Your task to perform on an android device: toggle notification dots Image 0: 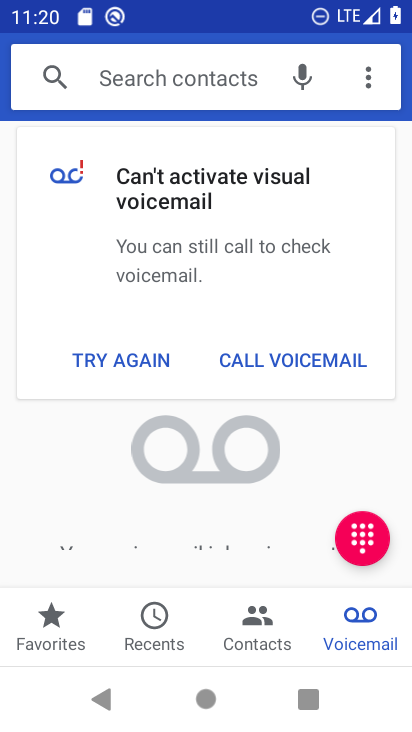
Step 0: press home button
Your task to perform on an android device: toggle notification dots Image 1: 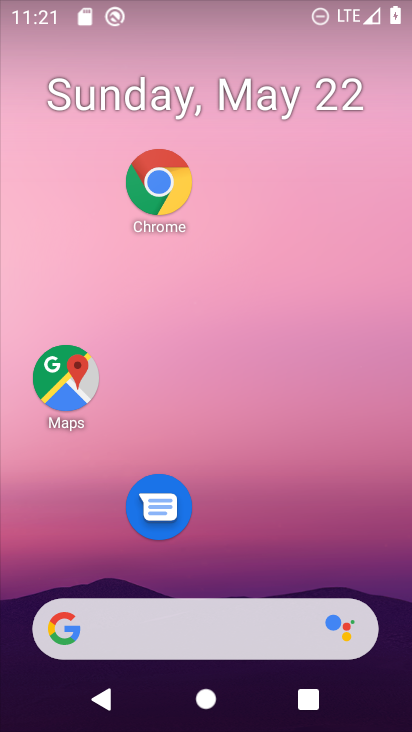
Step 1: drag from (252, 698) to (403, 52)
Your task to perform on an android device: toggle notification dots Image 2: 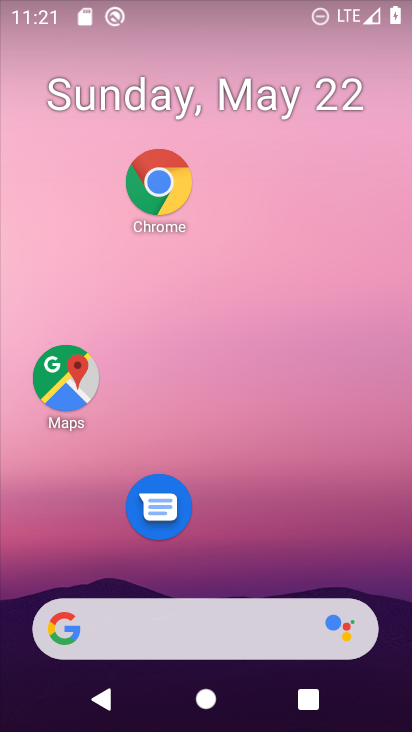
Step 2: drag from (263, 693) to (296, 1)
Your task to perform on an android device: toggle notification dots Image 3: 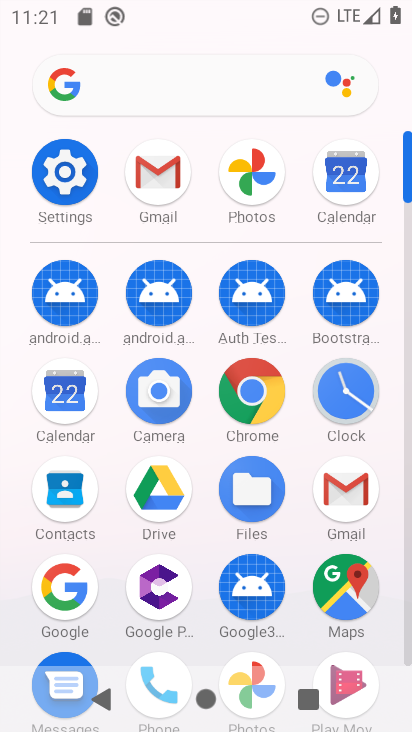
Step 3: click (59, 170)
Your task to perform on an android device: toggle notification dots Image 4: 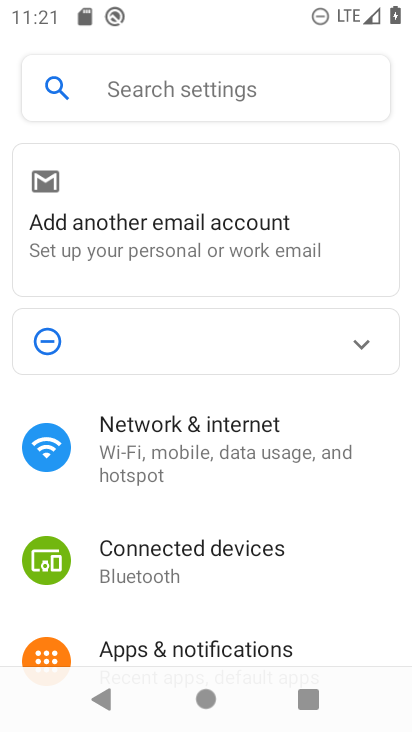
Step 4: click (248, 640)
Your task to perform on an android device: toggle notification dots Image 5: 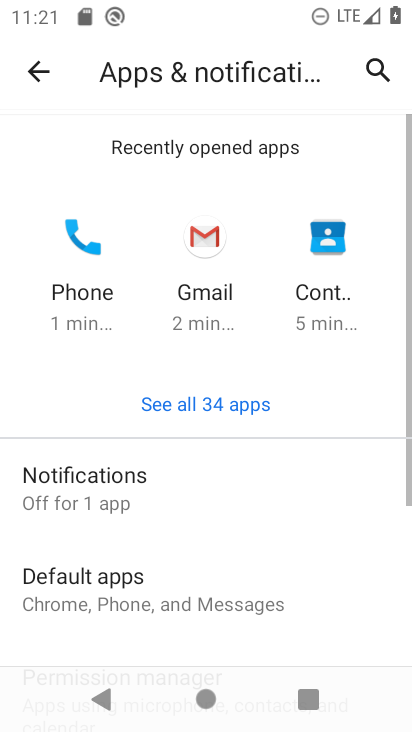
Step 5: drag from (273, 575) to (195, 61)
Your task to perform on an android device: toggle notification dots Image 6: 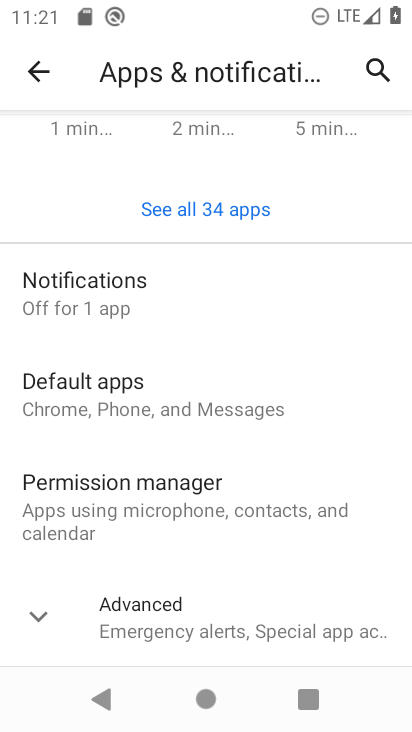
Step 6: click (294, 629)
Your task to perform on an android device: toggle notification dots Image 7: 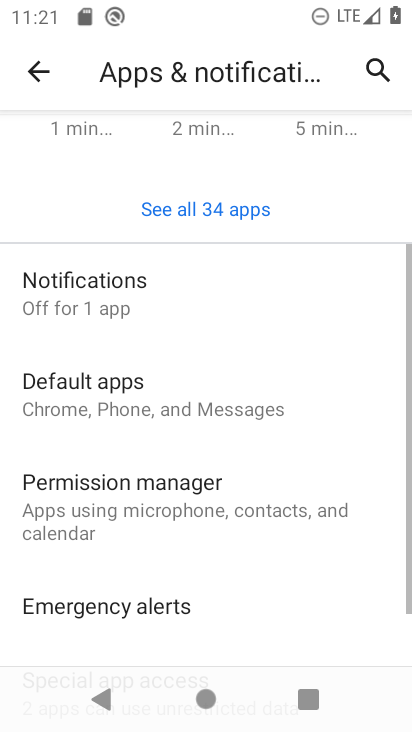
Step 7: click (254, 326)
Your task to perform on an android device: toggle notification dots Image 8: 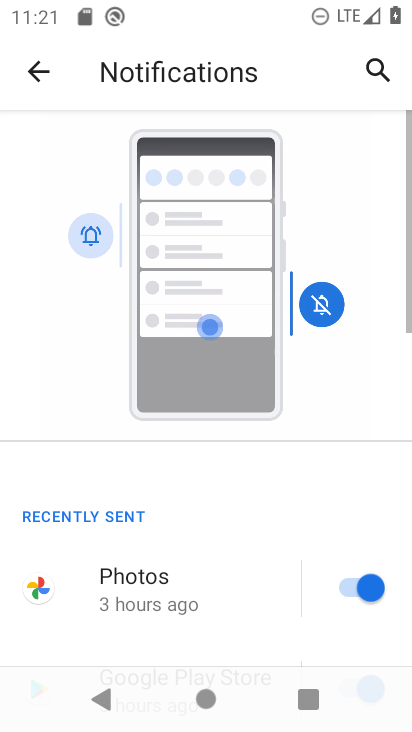
Step 8: drag from (274, 587) to (243, 10)
Your task to perform on an android device: toggle notification dots Image 9: 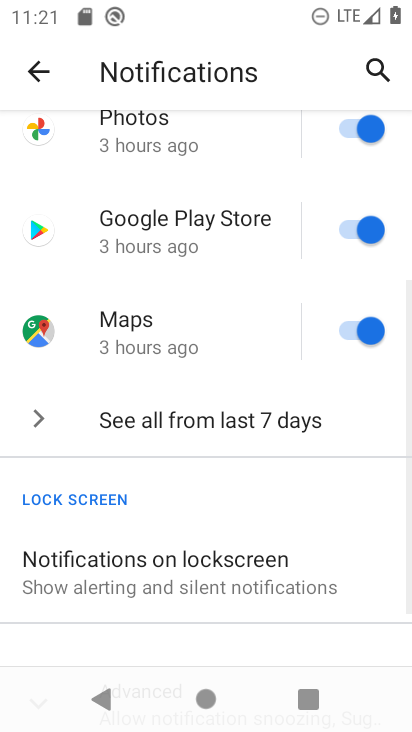
Step 9: drag from (305, 619) to (291, 115)
Your task to perform on an android device: toggle notification dots Image 10: 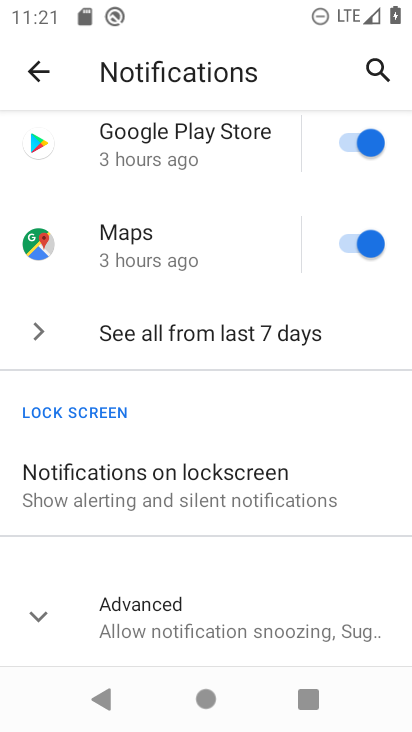
Step 10: click (346, 633)
Your task to perform on an android device: toggle notification dots Image 11: 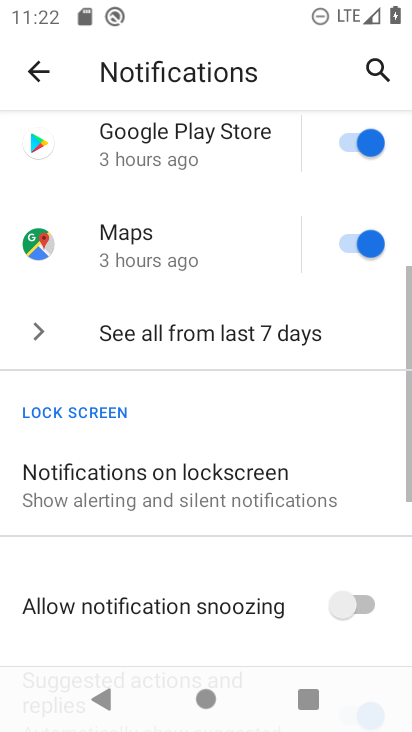
Step 11: drag from (303, 604) to (272, 8)
Your task to perform on an android device: toggle notification dots Image 12: 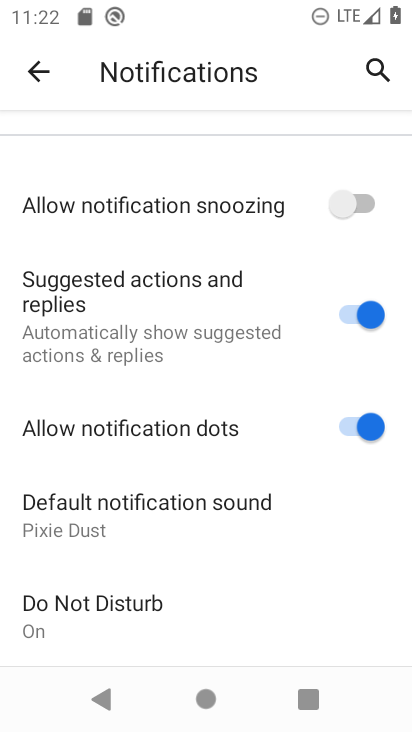
Step 12: click (377, 424)
Your task to perform on an android device: toggle notification dots Image 13: 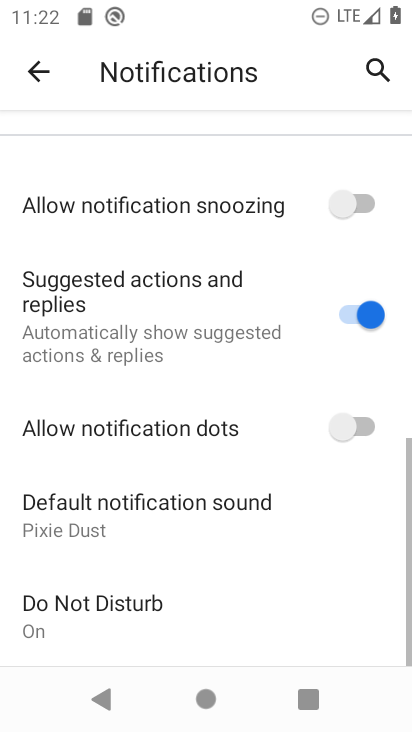
Step 13: task complete